Your task to perform on an android device: turn off sleep mode Image 0: 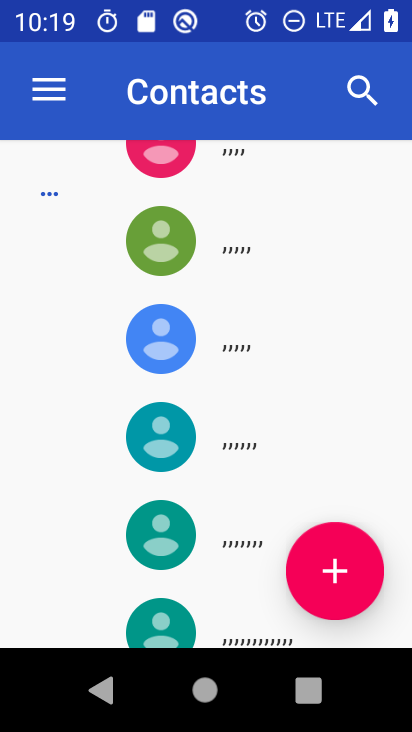
Step 0: press home button
Your task to perform on an android device: turn off sleep mode Image 1: 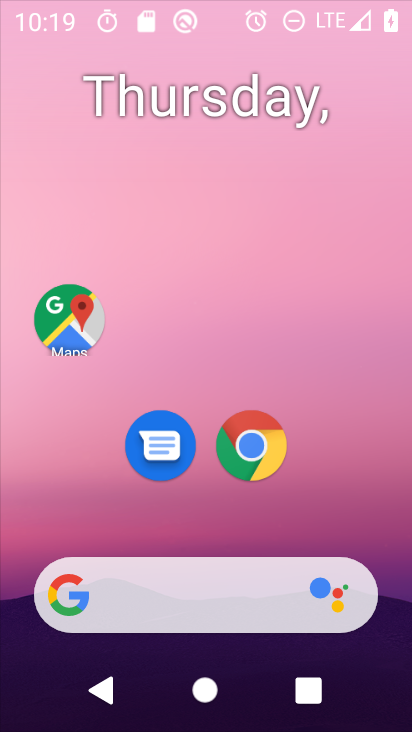
Step 1: drag from (208, 587) to (248, 202)
Your task to perform on an android device: turn off sleep mode Image 2: 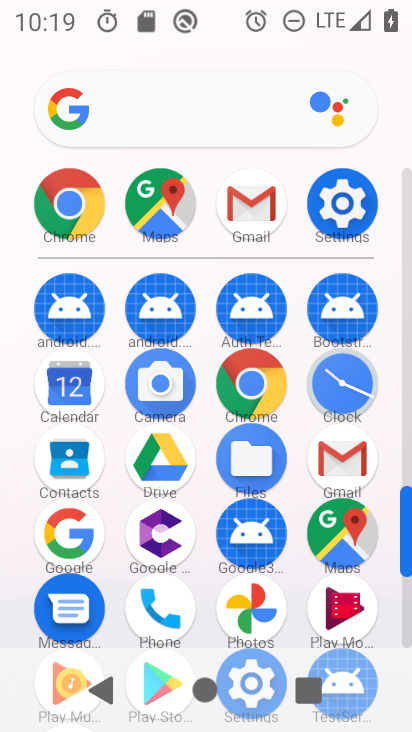
Step 2: click (334, 201)
Your task to perform on an android device: turn off sleep mode Image 3: 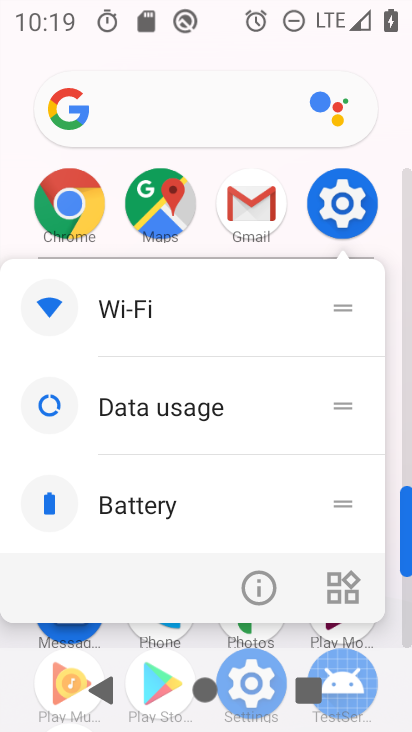
Step 3: click (255, 580)
Your task to perform on an android device: turn off sleep mode Image 4: 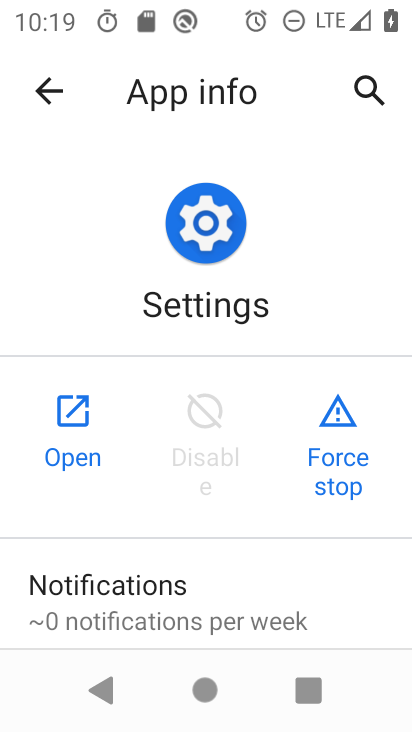
Step 4: click (62, 414)
Your task to perform on an android device: turn off sleep mode Image 5: 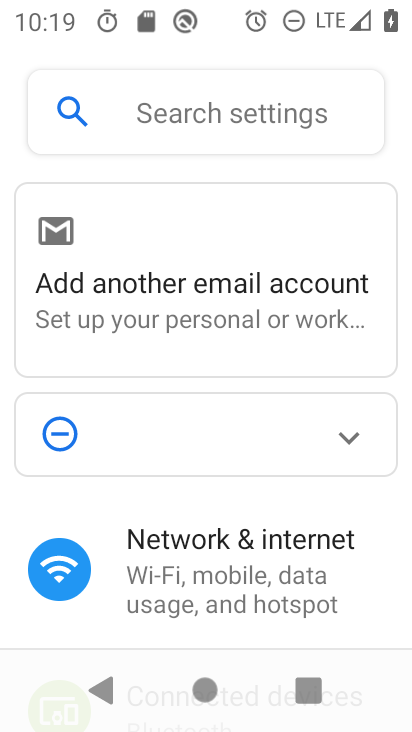
Step 5: drag from (240, 587) to (280, 234)
Your task to perform on an android device: turn off sleep mode Image 6: 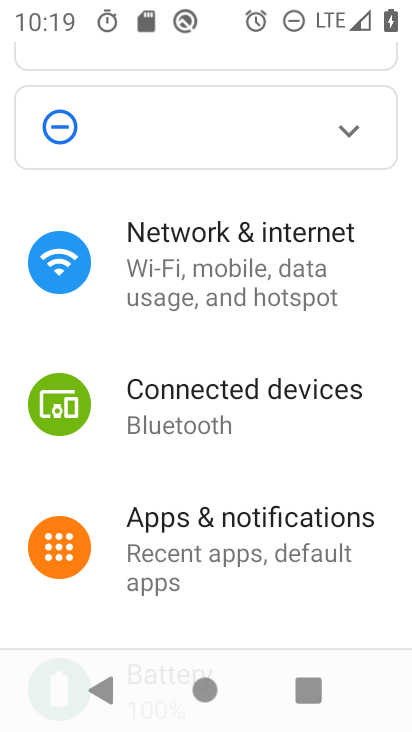
Step 6: drag from (248, 575) to (330, 179)
Your task to perform on an android device: turn off sleep mode Image 7: 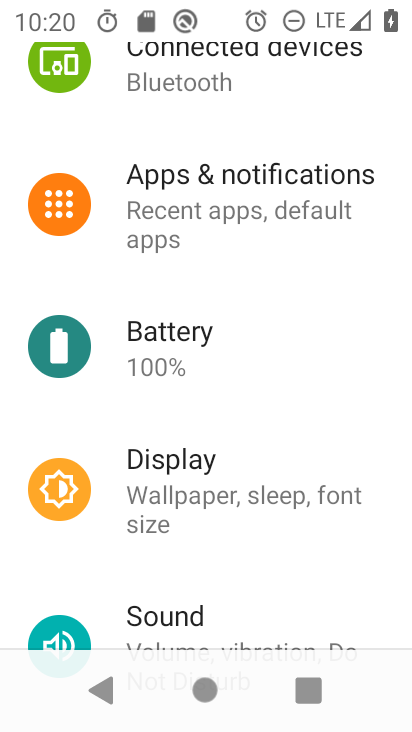
Step 7: click (199, 490)
Your task to perform on an android device: turn off sleep mode Image 8: 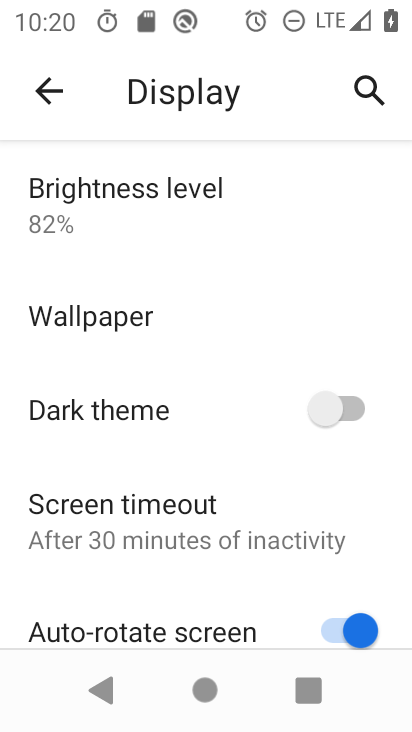
Step 8: drag from (194, 631) to (278, 281)
Your task to perform on an android device: turn off sleep mode Image 9: 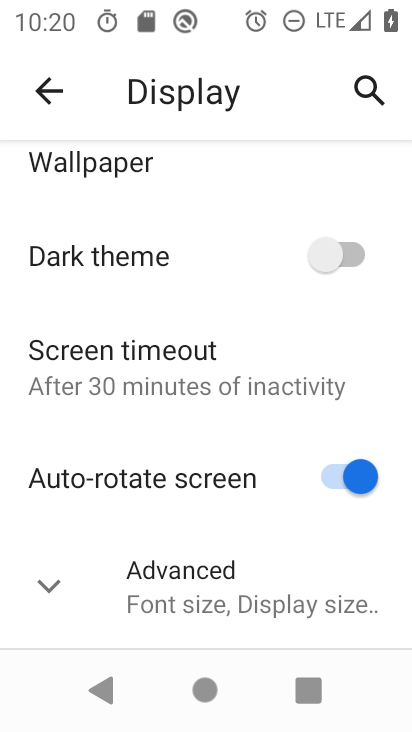
Step 9: click (116, 352)
Your task to perform on an android device: turn off sleep mode Image 10: 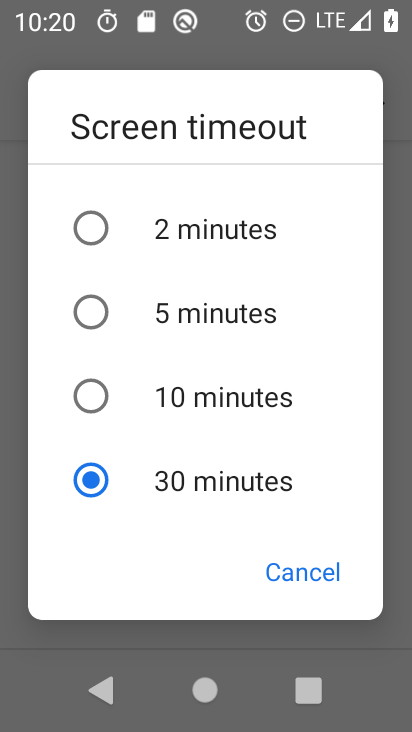
Step 10: task complete